Your task to perform on an android device: Open Amazon Image 0: 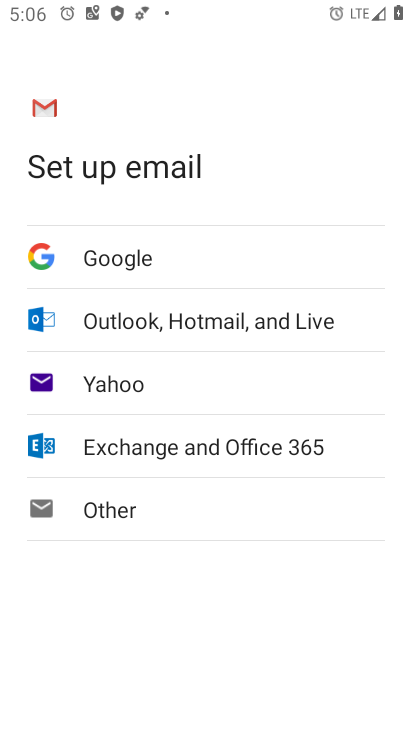
Step 0: press home button
Your task to perform on an android device: Open Amazon Image 1: 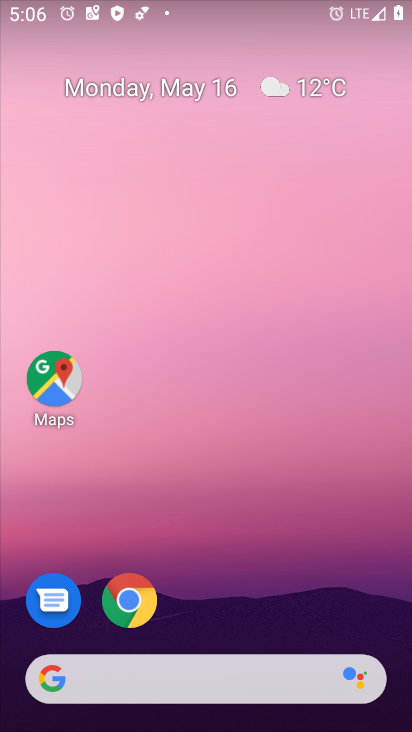
Step 1: click (125, 601)
Your task to perform on an android device: Open Amazon Image 2: 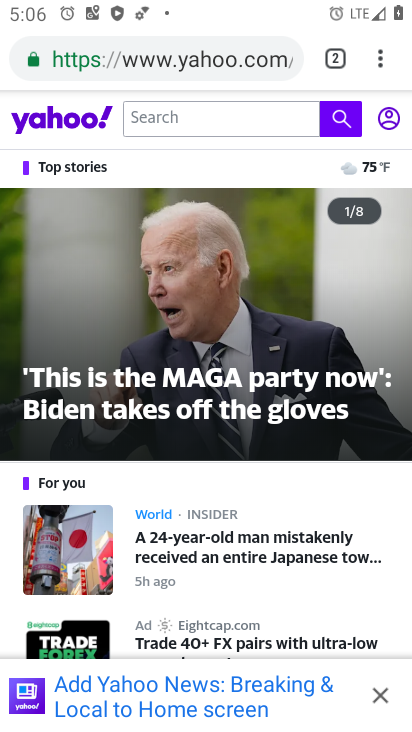
Step 2: click (329, 55)
Your task to perform on an android device: Open Amazon Image 3: 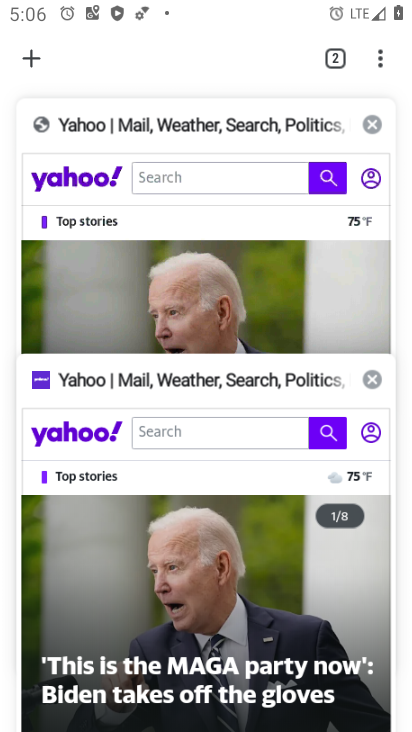
Step 3: click (25, 62)
Your task to perform on an android device: Open Amazon Image 4: 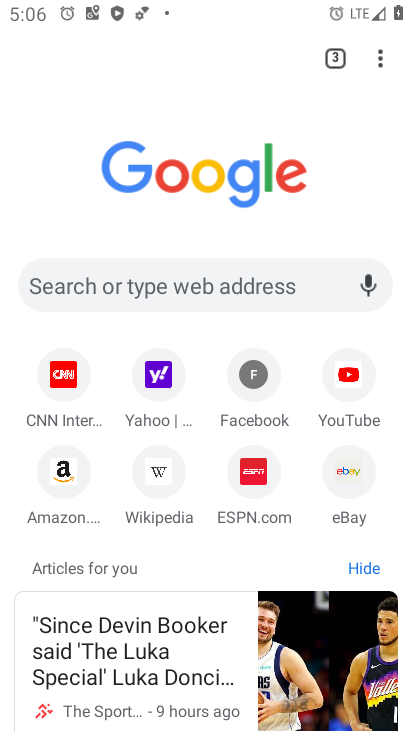
Step 4: click (52, 474)
Your task to perform on an android device: Open Amazon Image 5: 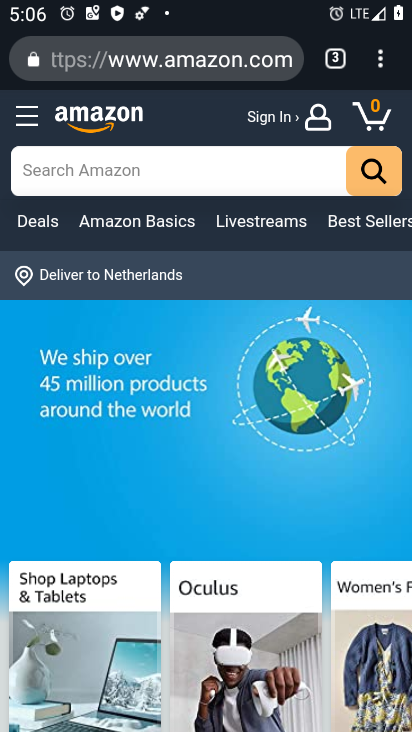
Step 5: task complete